Your task to perform on an android device: Open display settings Image 0: 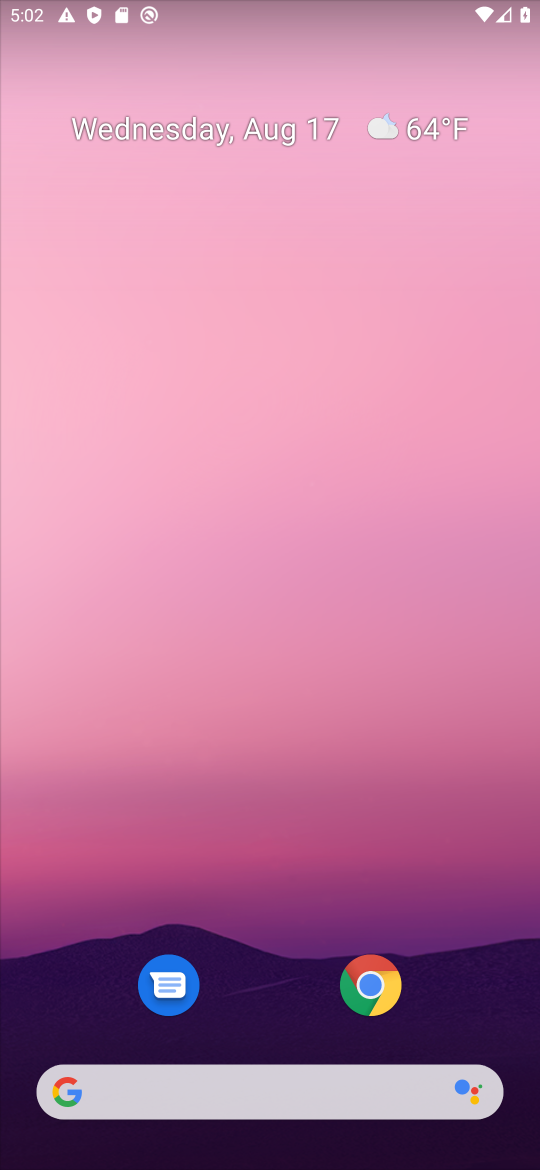
Step 0: drag from (257, 1059) to (295, 183)
Your task to perform on an android device: Open display settings Image 1: 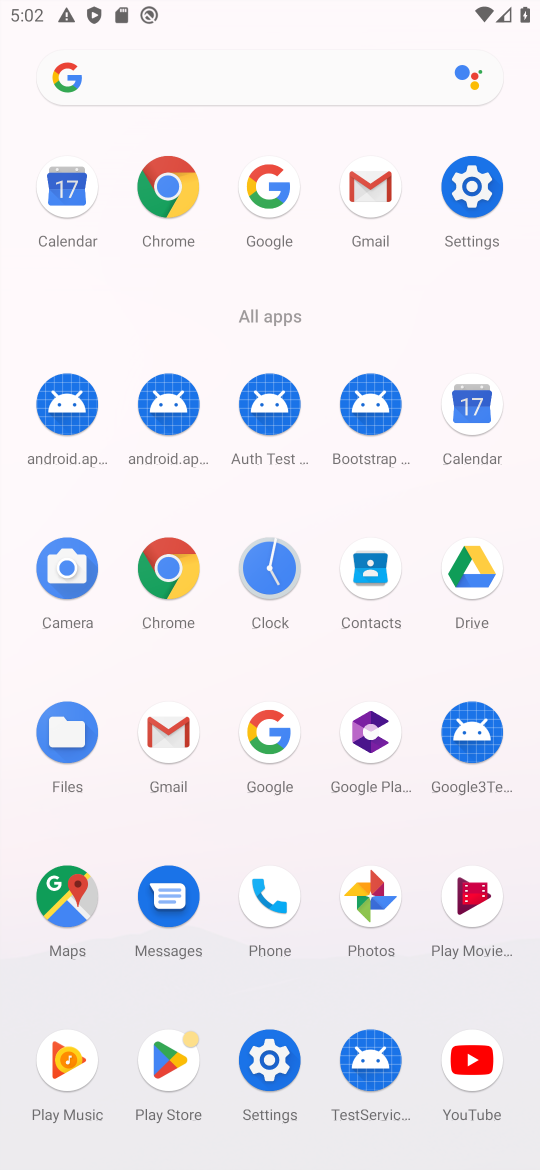
Step 1: click (468, 186)
Your task to perform on an android device: Open display settings Image 2: 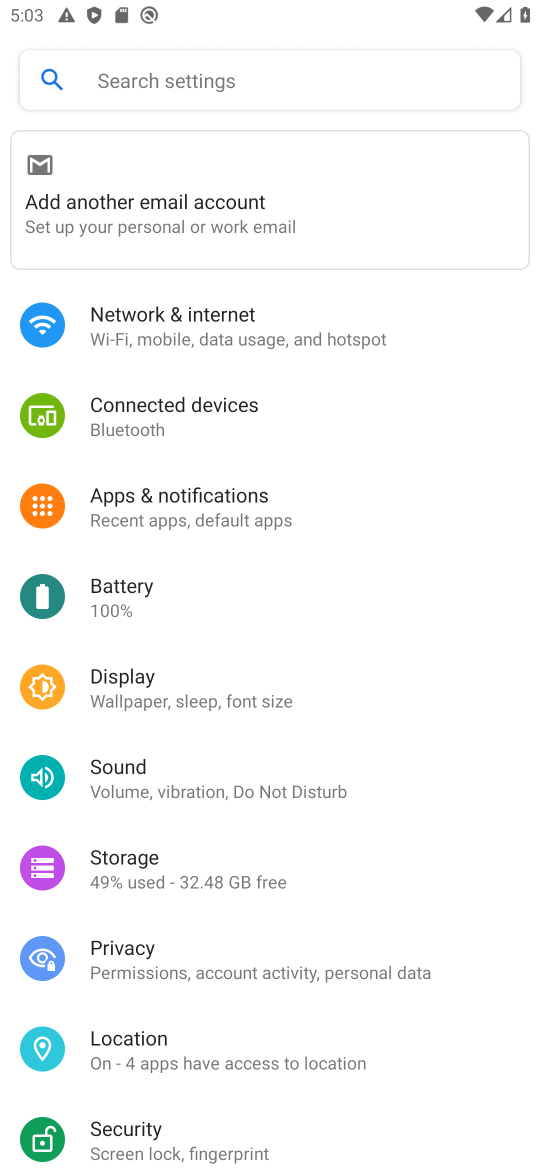
Step 2: click (130, 684)
Your task to perform on an android device: Open display settings Image 3: 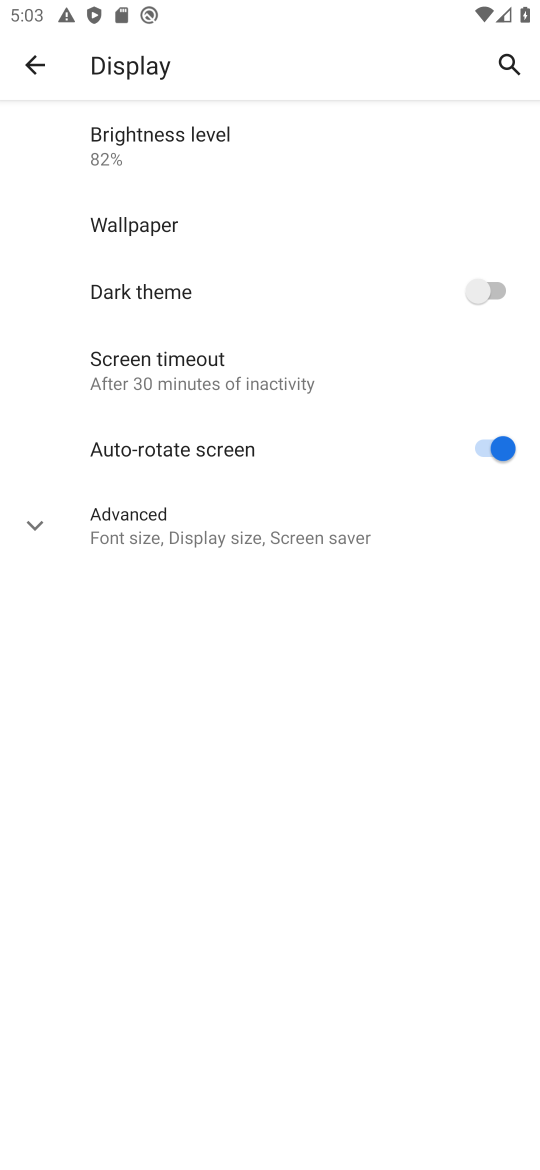
Step 3: task complete